Your task to perform on an android device: Nike Air Max 2020 shoes on Nike.com Image 0: 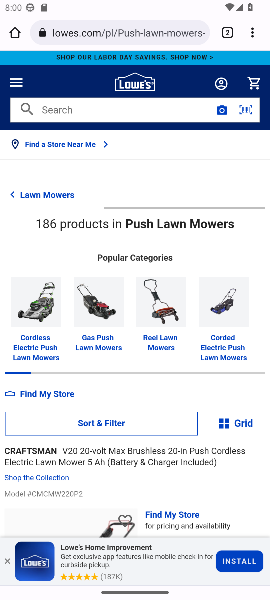
Step 0: press home button
Your task to perform on an android device: Nike Air Max 2020 shoes on Nike.com Image 1: 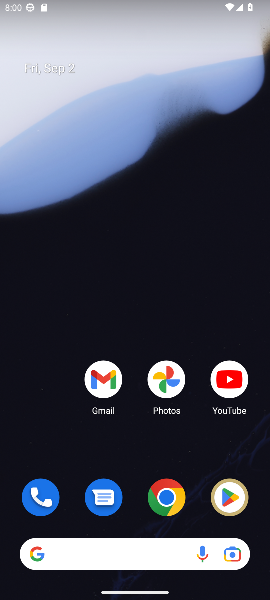
Step 1: drag from (134, 516) to (125, 282)
Your task to perform on an android device: Nike Air Max 2020 shoes on Nike.com Image 2: 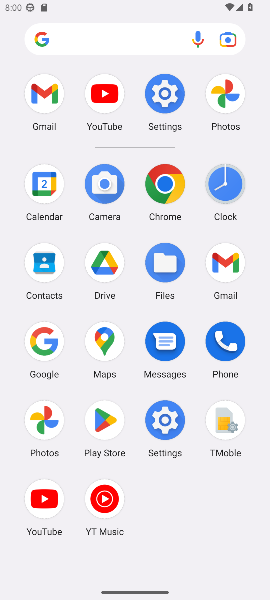
Step 2: click (43, 342)
Your task to perform on an android device: Nike Air Max 2020 shoes on Nike.com Image 3: 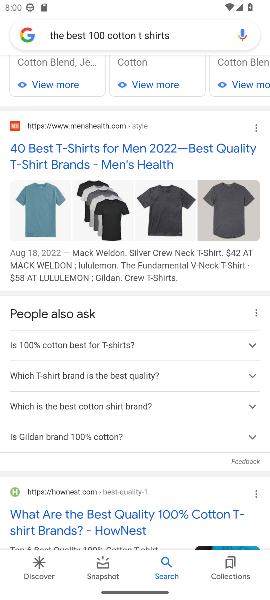
Step 3: click (194, 36)
Your task to perform on an android device: Nike Air Max 2020 shoes on Nike.com Image 4: 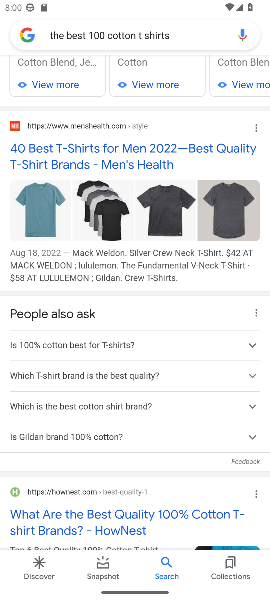
Step 4: click (194, 36)
Your task to perform on an android device: Nike Air Max 2020 shoes on Nike.com Image 5: 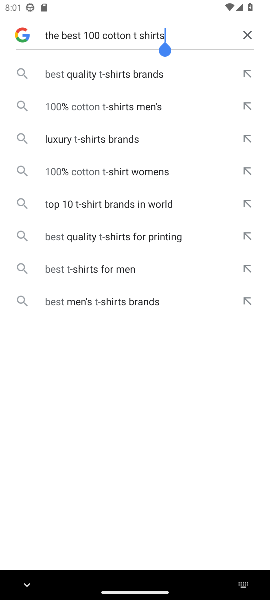
Step 5: click (247, 36)
Your task to perform on an android device: Nike Air Max 2020 shoes on Nike.com Image 6: 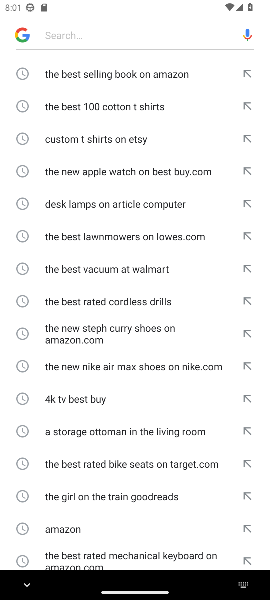
Step 6: type "Nike Air Max 2020 shoes on Nike.com"
Your task to perform on an android device: Nike Air Max 2020 shoes on Nike.com Image 7: 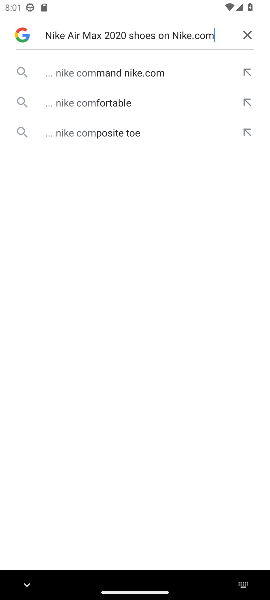
Step 7: click (139, 72)
Your task to perform on an android device: Nike Air Max 2020 shoes on Nike.com Image 8: 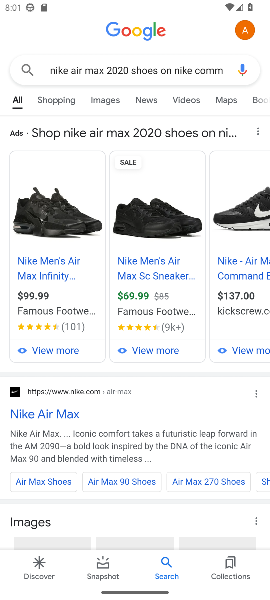
Step 8: click (83, 391)
Your task to perform on an android device: Nike Air Max 2020 shoes on Nike.com Image 9: 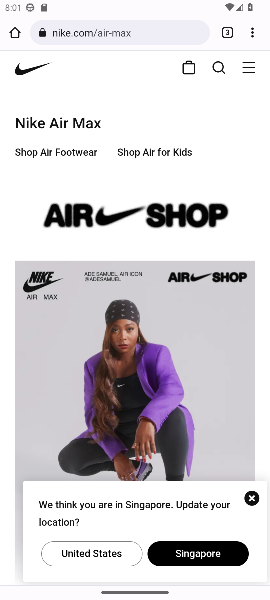
Step 9: task complete